Your task to perform on an android device: uninstall "Google Duo" Image 0: 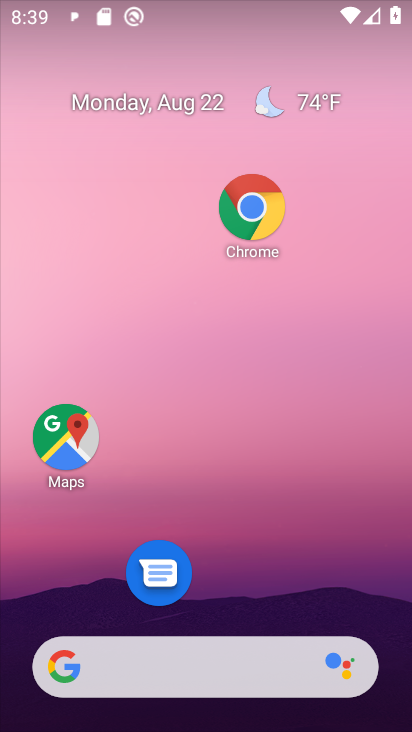
Step 0: drag from (261, 614) to (361, 60)
Your task to perform on an android device: uninstall "Google Duo" Image 1: 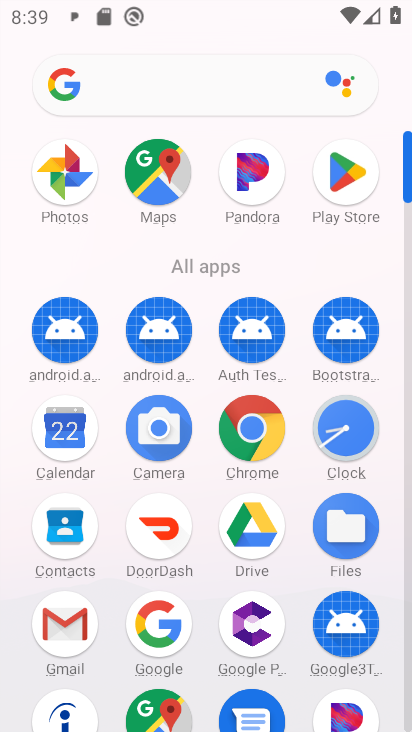
Step 1: click (368, 185)
Your task to perform on an android device: uninstall "Google Duo" Image 2: 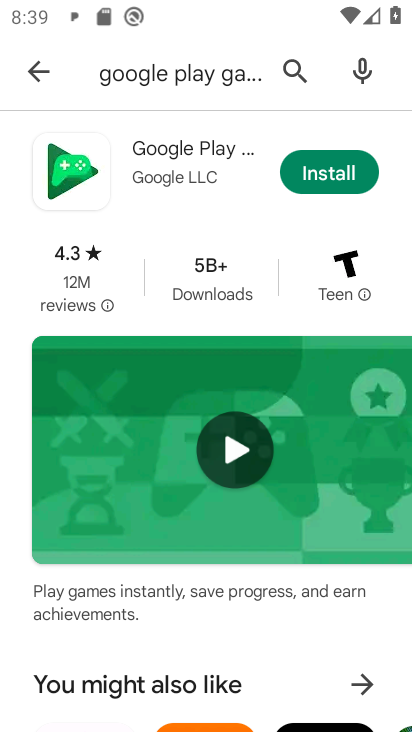
Step 2: click (199, 72)
Your task to perform on an android device: uninstall "Google Duo" Image 3: 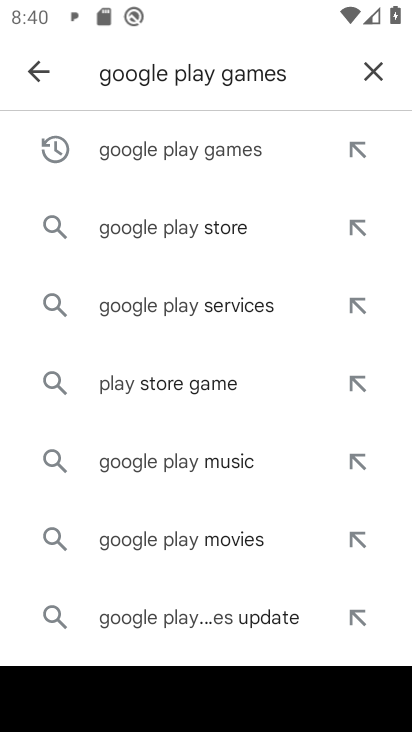
Step 3: click (373, 69)
Your task to perform on an android device: uninstall "Google Duo" Image 4: 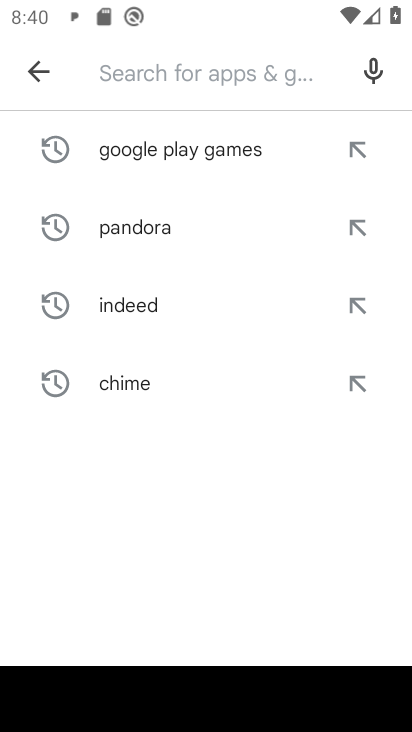
Step 4: type "google duo"
Your task to perform on an android device: uninstall "Google Duo" Image 5: 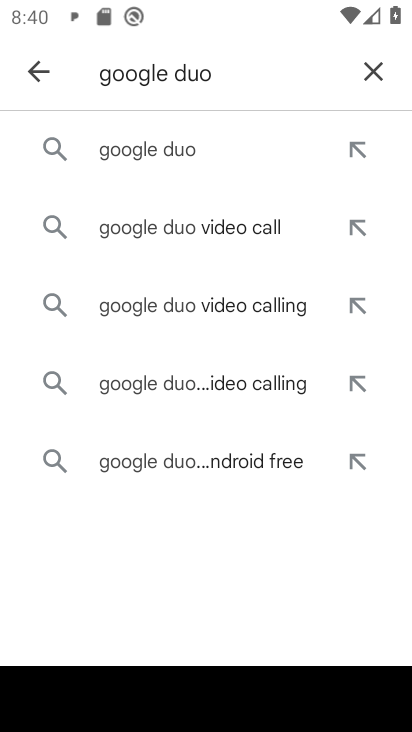
Step 5: click (158, 145)
Your task to perform on an android device: uninstall "Google Duo" Image 6: 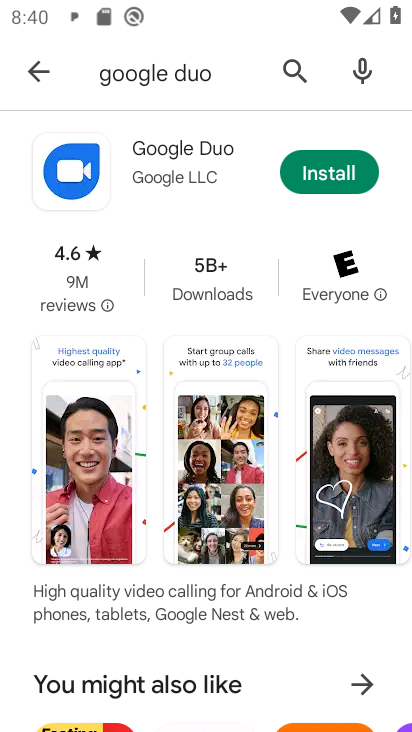
Step 6: task complete